Your task to perform on an android device: read, delete, or share a saved page in the chrome app Image 0: 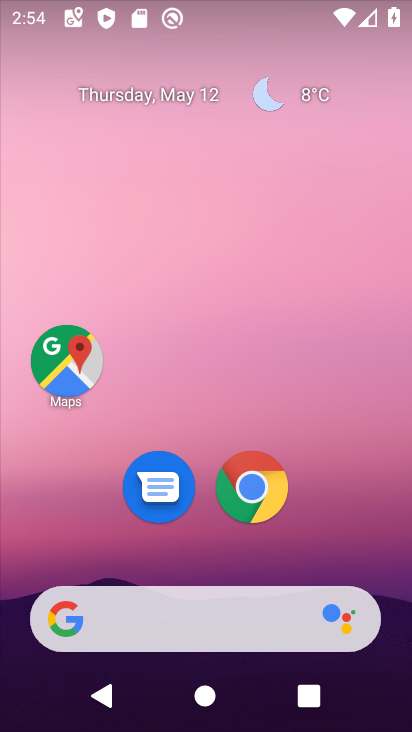
Step 0: drag from (326, 503) to (291, 88)
Your task to perform on an android device: read, delete, or share a saved page in the chrome app Image 1: 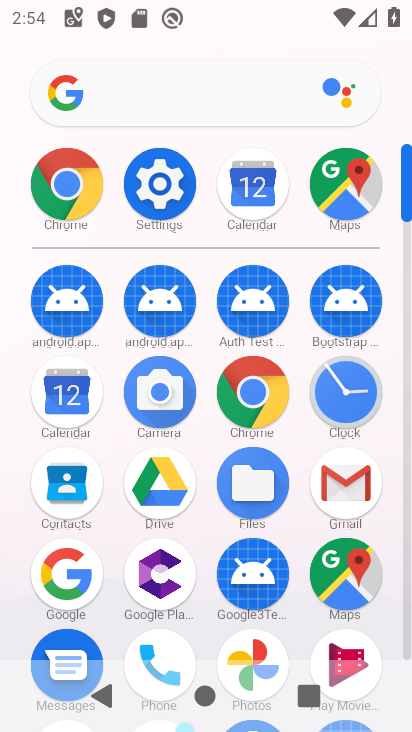
Step 1: click (252, 397)
Your task to perform on an android device: read, delete, or share a saved page in the chrome app Image 2: 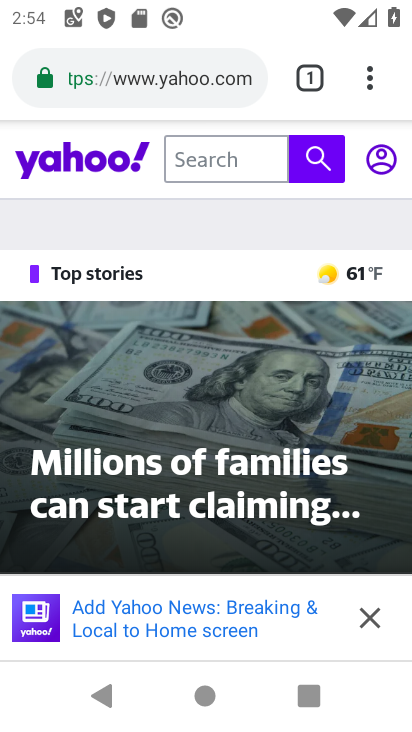
Step 2: task complete